Your task to perform on an android device: Open internet settings Image 0: 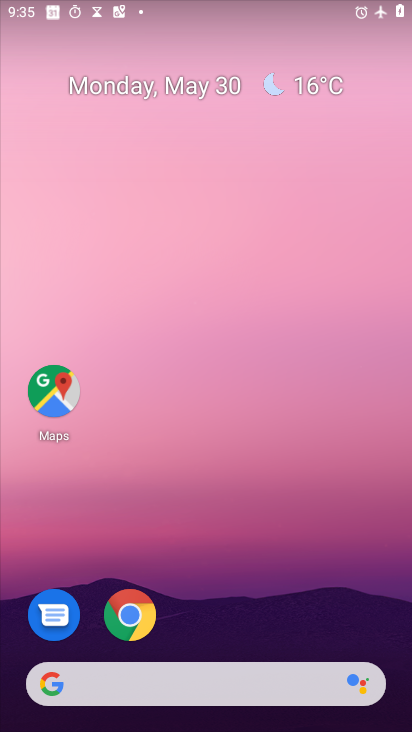
Step 0: drag from (320, 583) to (248, 18)
Your task to perform on an android device: Open internet settings Image 1: 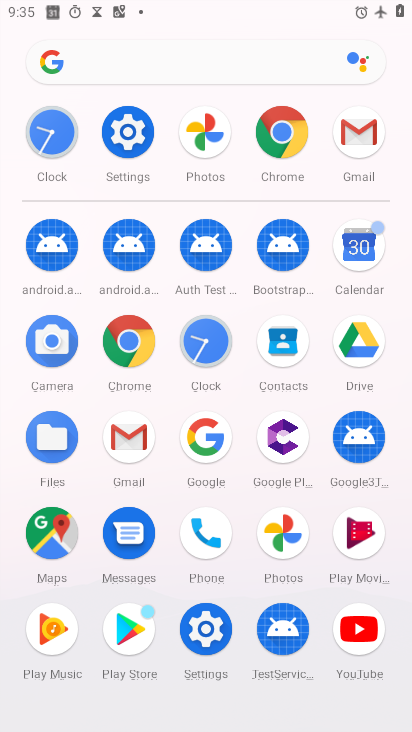
Step 1: click (110, 134)
Your task to perform on an android device: Open internet settings Image 2: 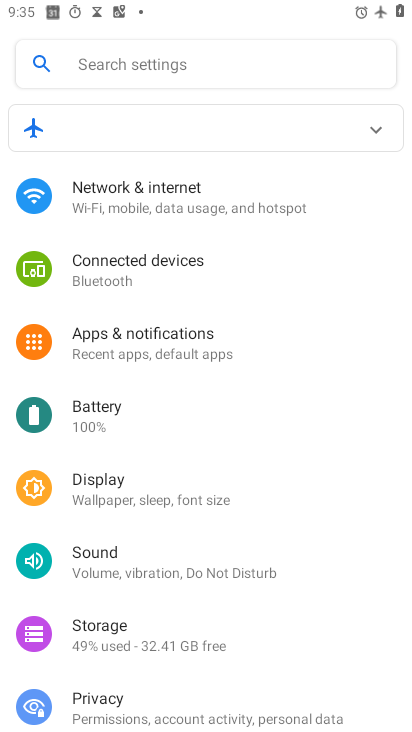
Step 2: click (103, 187)
Your task to perform on an android device: Open internet settings Image 3: 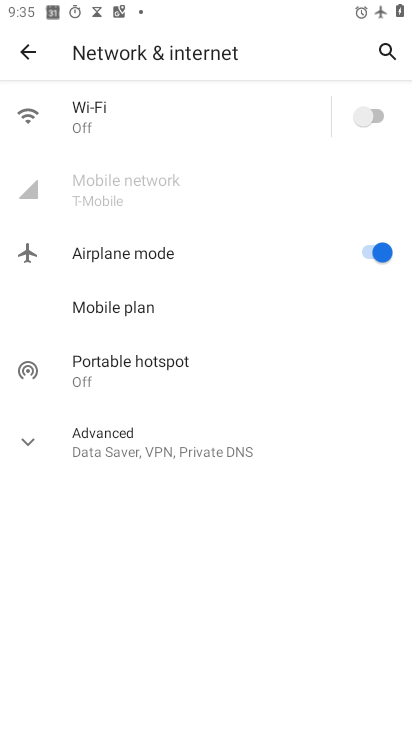
Step 3: task complete